Your task to perform on an android device: turn pop-ups off in chrome Image 0: 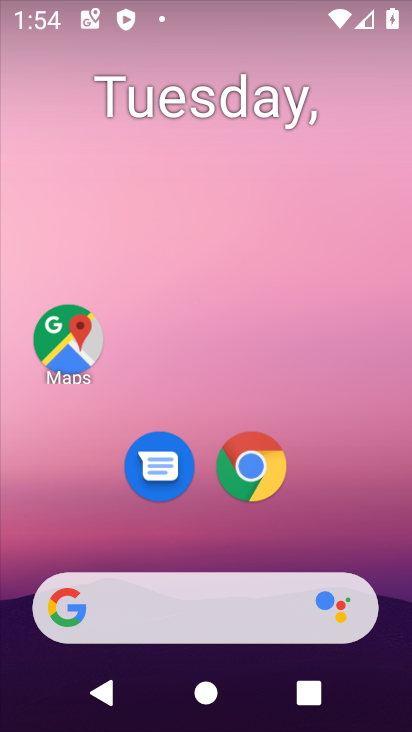
Step 0: click (249, 481)
Your task to perform on an android device: turn pop-ups off in chrome Image 1: 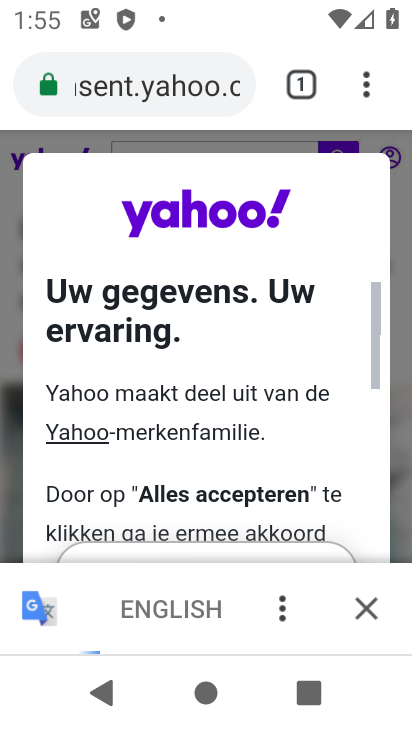
Step 1: task complete